Your task to perform on an android device: Open network settings Image 0: 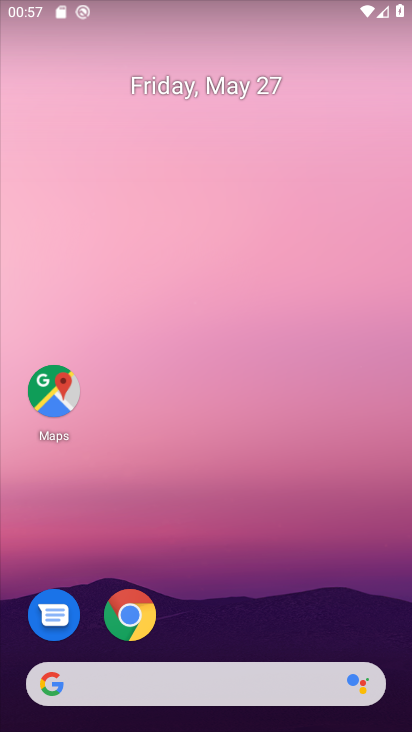
Step 0: drag from (354, 531) to (384, 200)
Your task to perform on an android device: Open network settings Image 1: 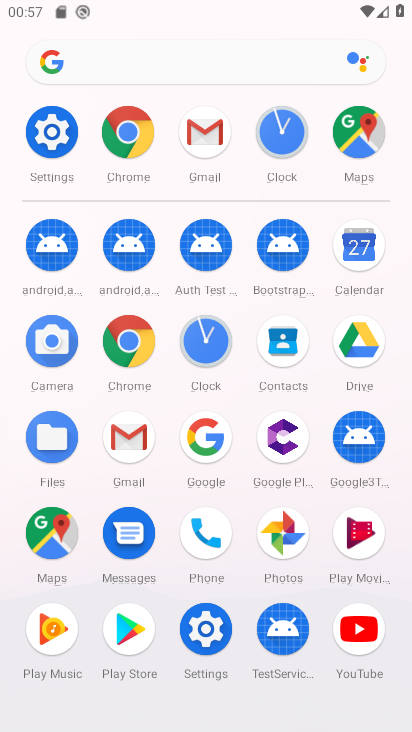
Step 1: click (207, 622)
Your task to perform on an android device: Open network settings Image 2: 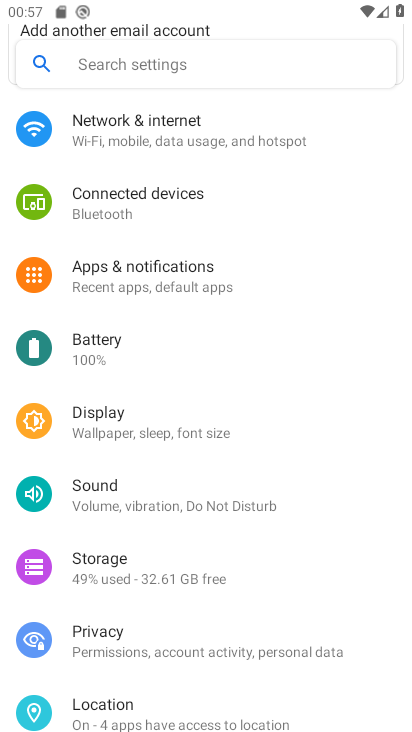
Step 2: drag from (346, 567) to (349, 487)
Your task to perform on an android device: Open network settings Image 3: 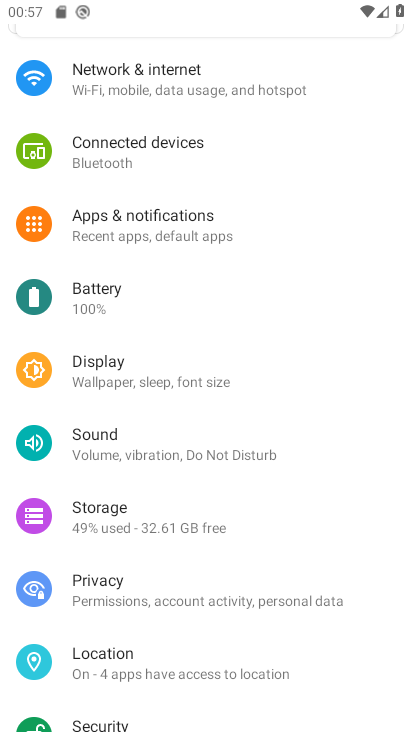
Step 3: drag from (352, 660) to (374, 543)
Your task to perform on an android device: Open network settings Image 4: 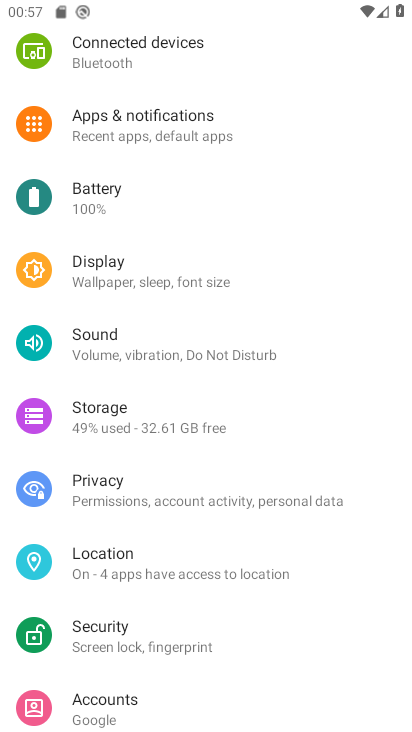
Step 4: drag from (355, 647) to (371, 537)
Your task to perform on an android device: Open network settings Image 5: 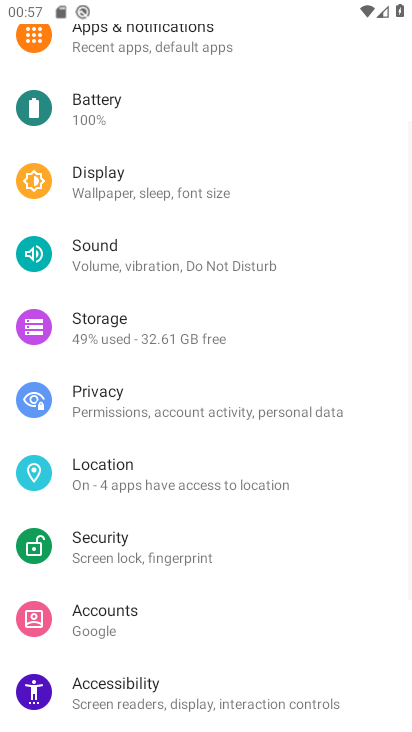
Step 5: drag from (355, 629) to (358, 550)
Your task to perform on an android device: Open network settings Image 6: 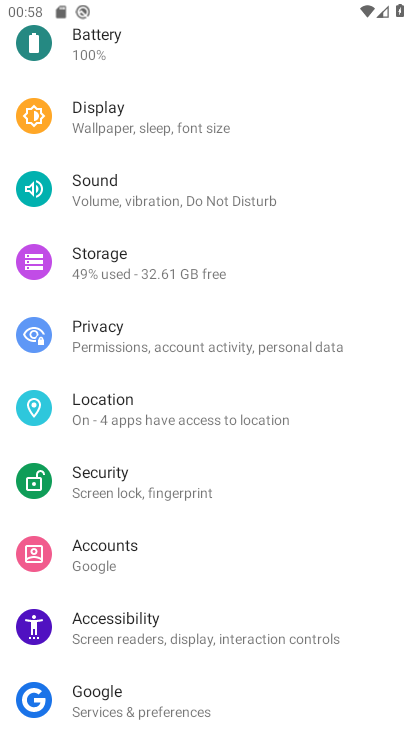
Step 6: drag from (365, 668) to (374, 584)
Your task to perform on an android device: Open network settings Image 7: 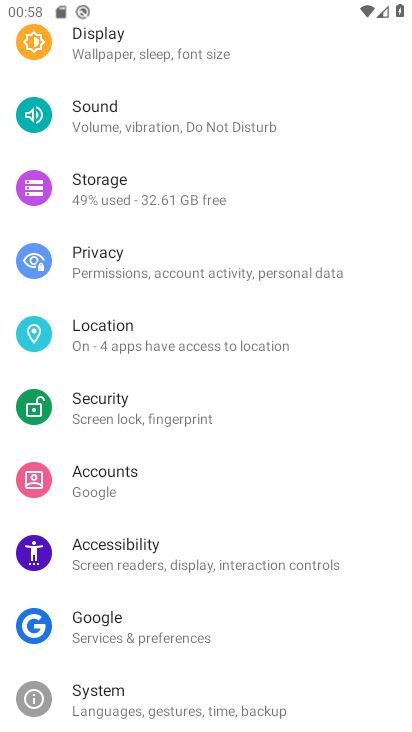
Step 7: drag from (359, 670) to (369, 581)
Your task to perform on an android device: Open network settings Image 8: 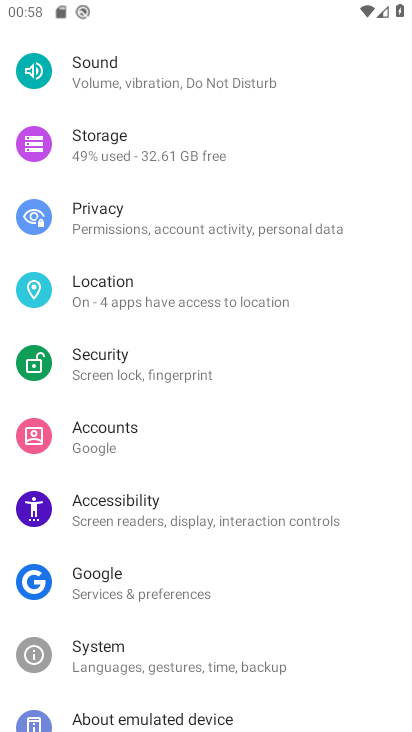
Step 8: drag from (363, 657) to (361, 553)
Your task to perform on an android device: Open network settings Image 9: 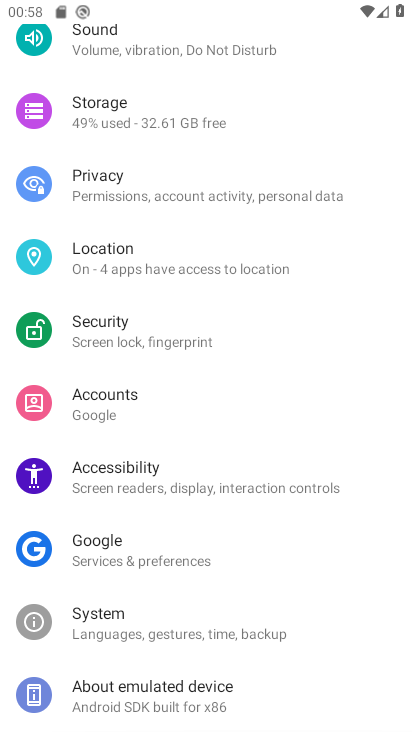
Step 9: drag from (363, 425) to (366, 511)
Your task to perform on an android device: Open network settings Image 10: 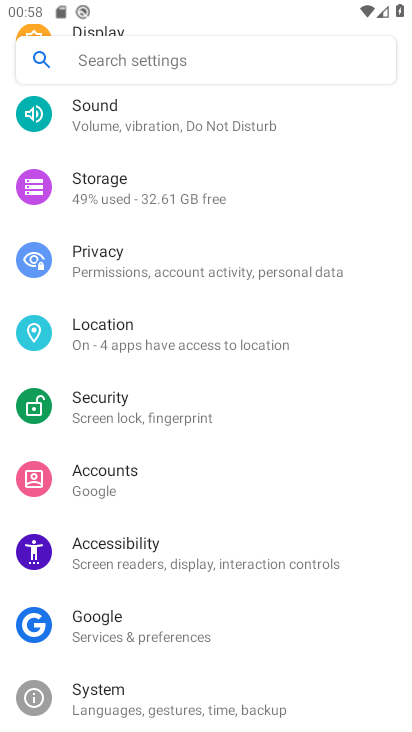
Step 10: drag from (371, 408) to (371, 478)
Your task to perform on an android device: Open network settings Image 11: 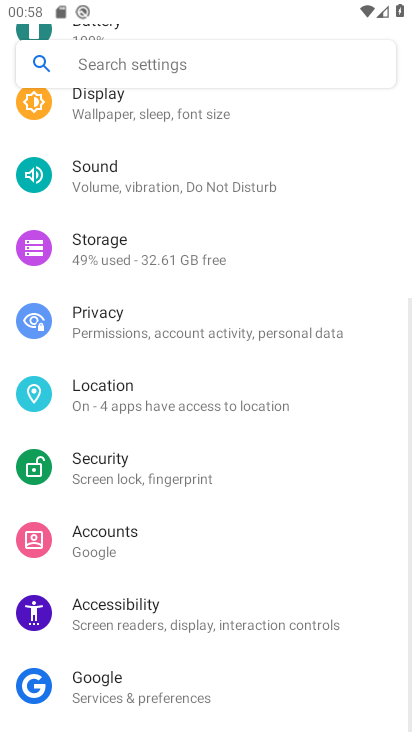
Step 11: drag from (377, 362) to (376, 443)
Your task to perform on an android device: Open network settings Image 12: 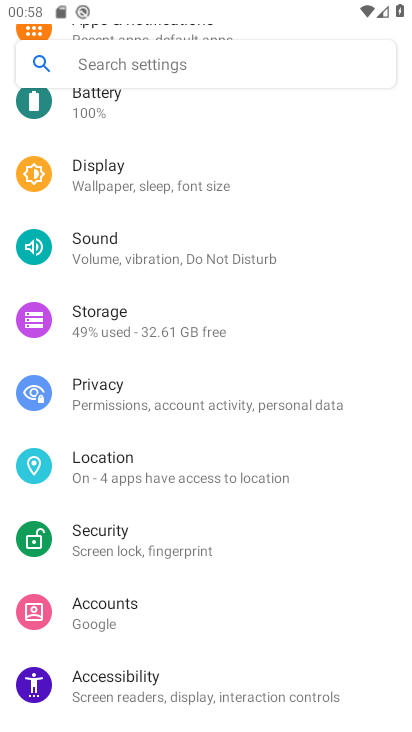
Step 12: drag from (373, 311) to (373, 399)
Your task to perform on an android device: Open network settings Image 13: 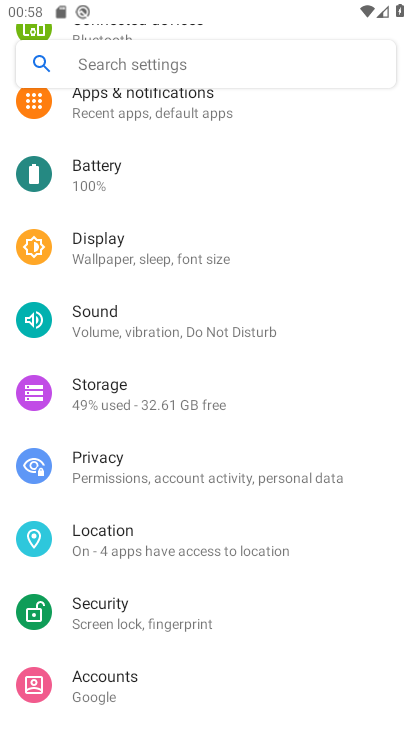
Step 13: drag from (374, 320) to (374, 379)
Your task to perform on an android device: Open network settings Image 14: 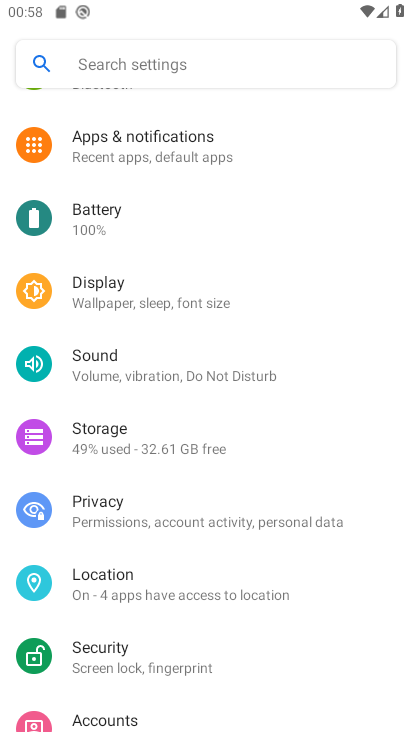
Step 14: drag from (376, 272) to (380, 340)
Your task to perform on an android device: Open network settings Image 15: 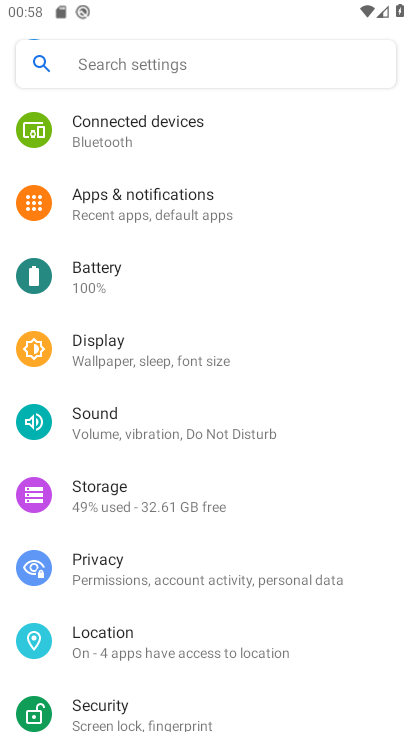
Step 15: drag from (379, 262) to (379, 328)
Your task to perform on an android device: Open network settings Image 16: 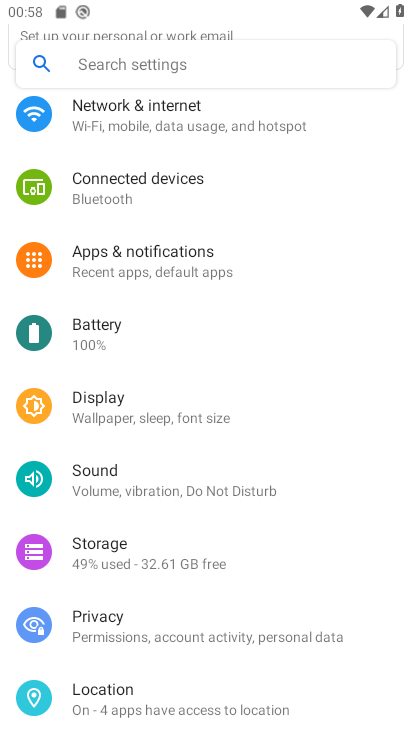
Step 16: drag from (366, 249) to (368, 323)
Your task to perform on an android device: Open network settings Image 17: 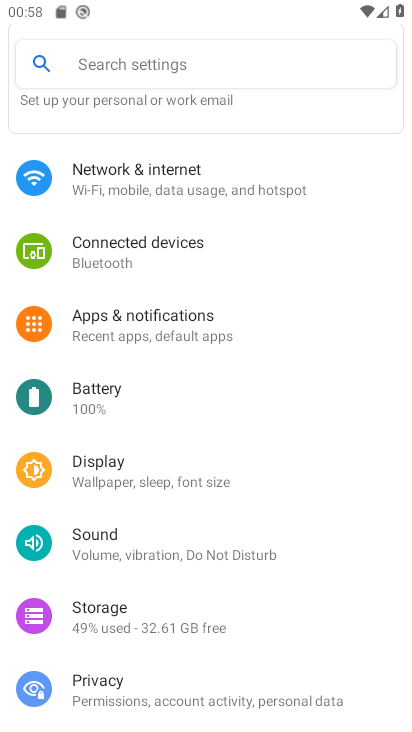
Step 17: drag from (358, 210) to (359, 307)
Your task to perform on an android device: Open network settings Image 18: 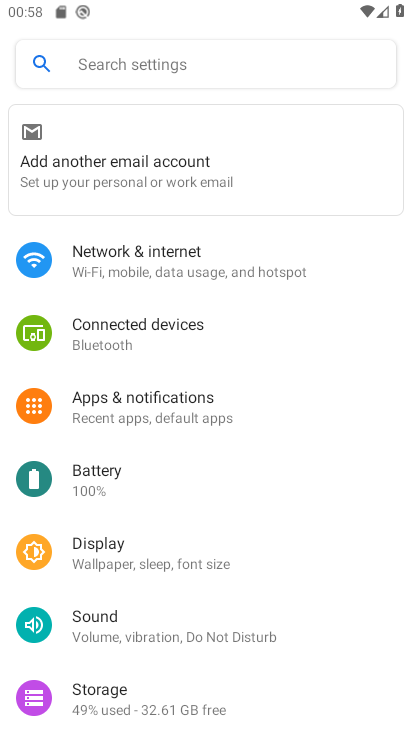
Step 18: drag from (357, 242) to (357, 314)
Your task to perform on an android device: Open network settings Image 19: 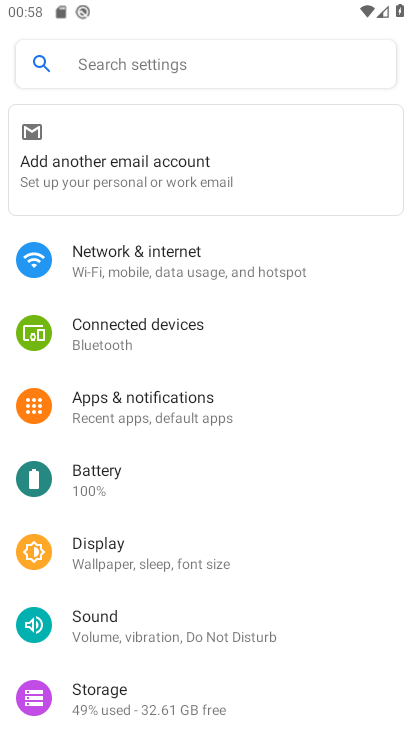
Step 19: click (257, 271)
Your task to perform on an android device: Open network settings Image 20: 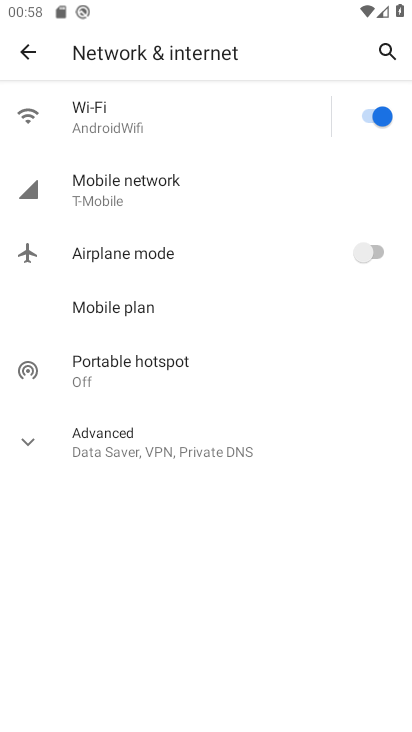
Step 20: task complete